Your task to perform on an android device: check android version Image 0: 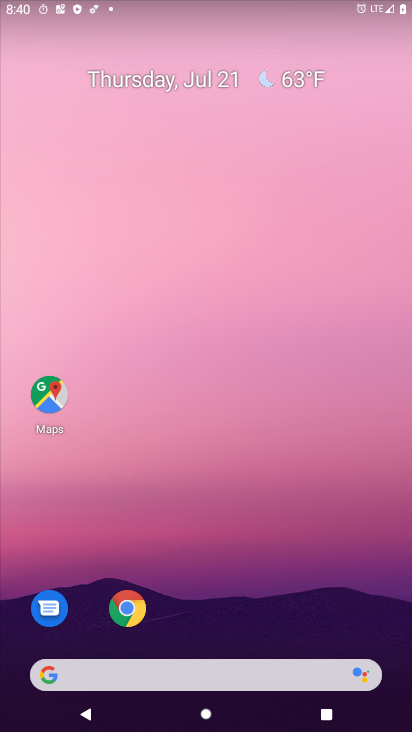
Step 0: press home button
Your task to perform on an android device: check android version Image 1: 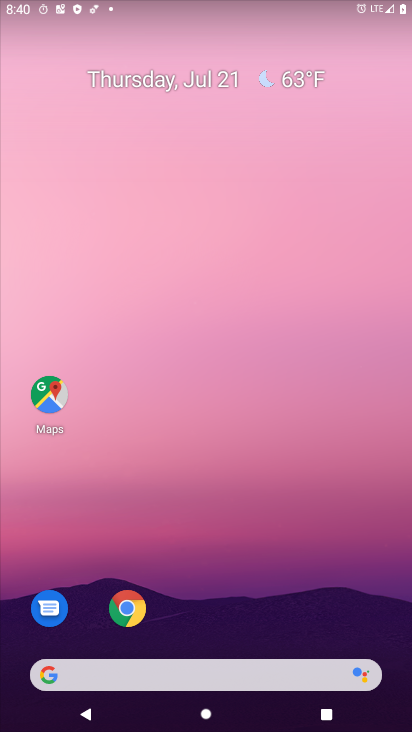
Step 1: drag from (306, 587) to (344, 0)
Your task to perform on an android device: check android version Image 2: 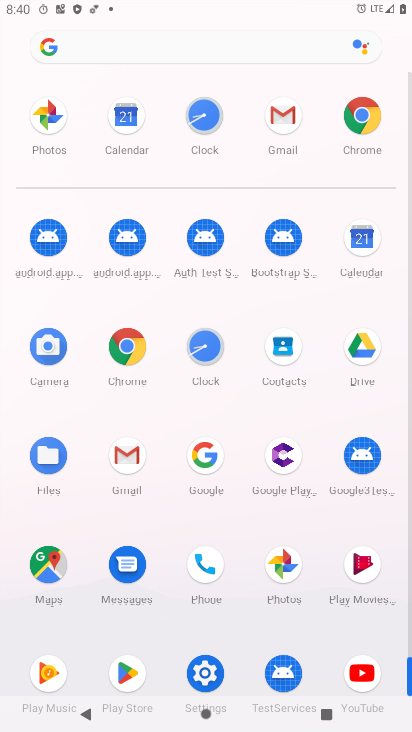
Step 2: click (205, 664)
Your task to perform on an android device: check android version Image 3: 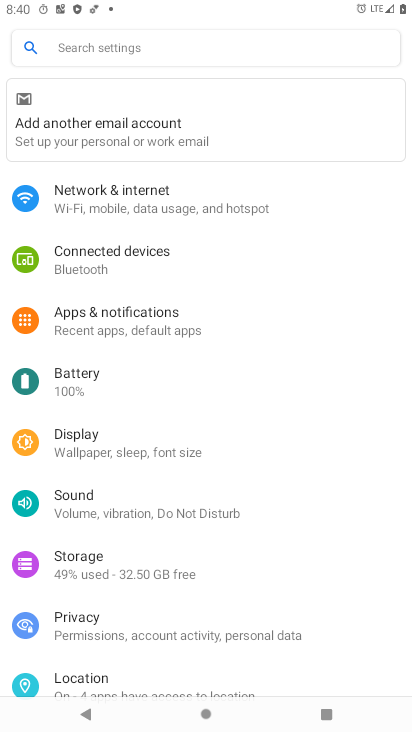
Step 3: drag from (298, 635) to (291, 107)
Your task to perform on an android device: check android version Image 4: 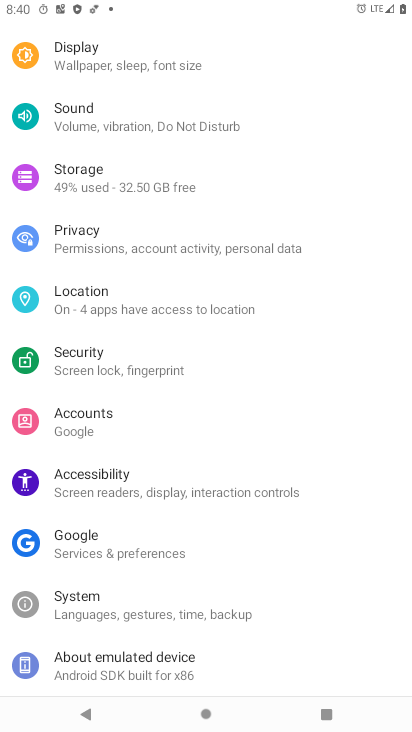
Step 4: click (89, 672)
Your task to perform on an android device: check android version Image 5: 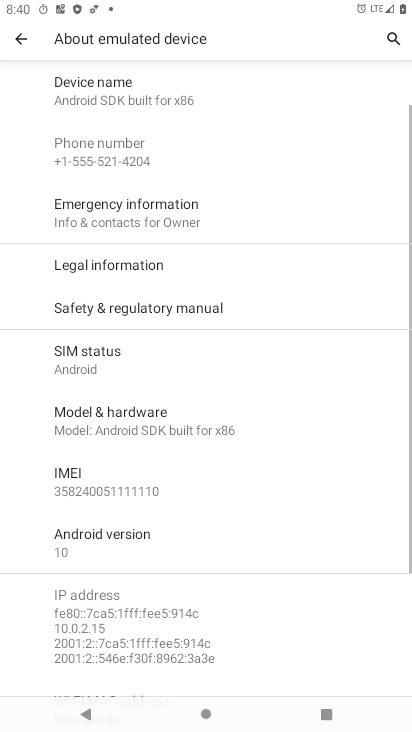
Step 5: click (127, 541)
Your task to perform on an android device: check android version Image 6: 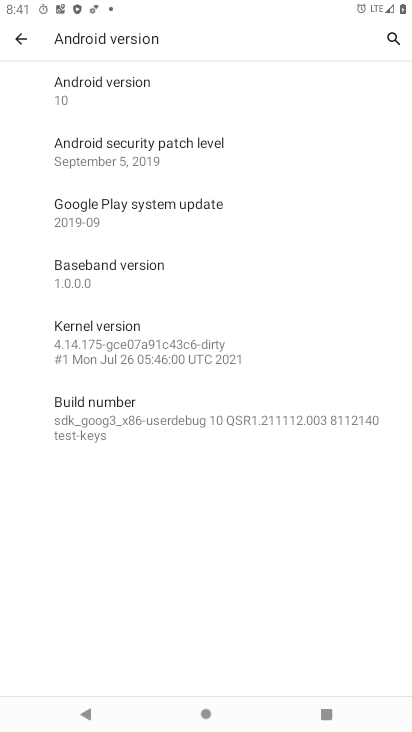
Step 6: task complete